Your task to perform on an android device: delete location history Image 0: 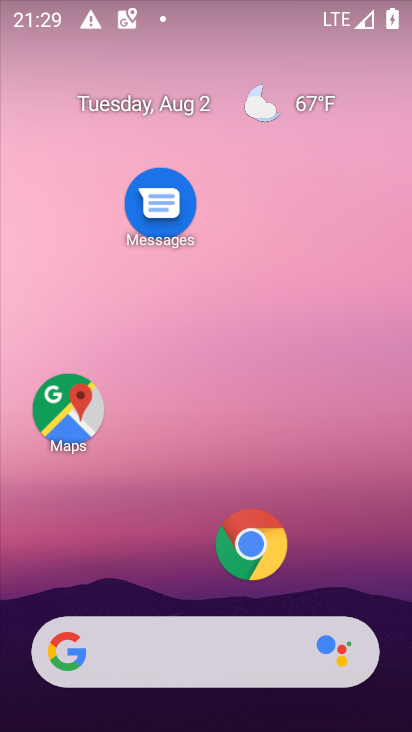
Step 0: click (80, 431)
Your task to perform on an android device: delete location history Image 1: 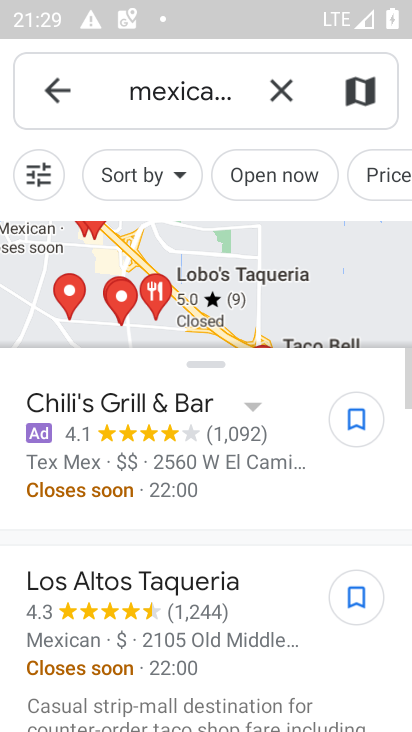
Step 1: click (51, 85)
Your task to perform on an android device: delete location history Image 2: 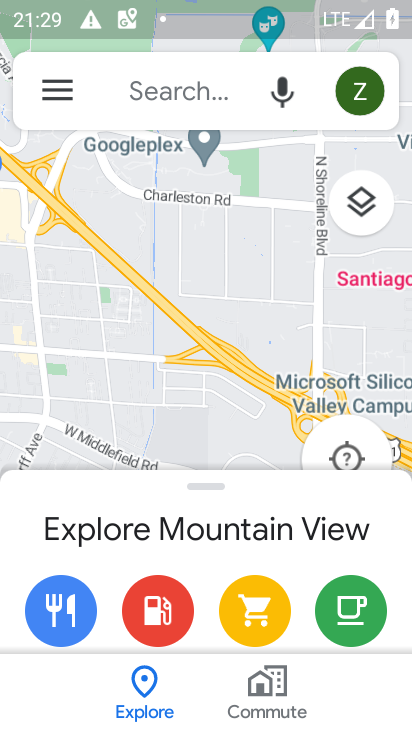
Step 2: click (51, 85)
Your task to perform on an android device: delete location history Image 3: 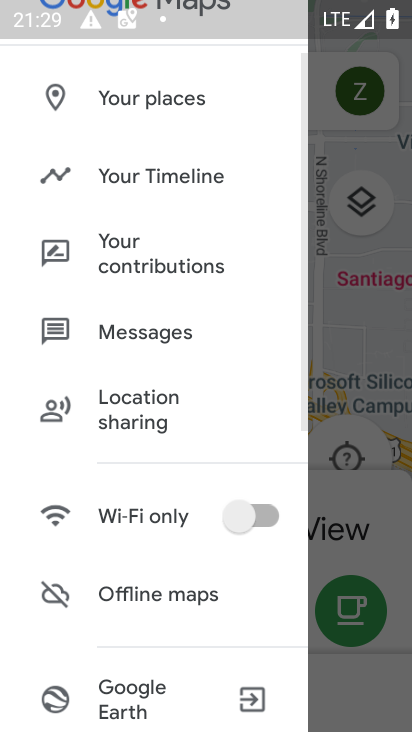
Step 3: click (172, 185)
Your task to perform on an android device: delete location history Image 4: 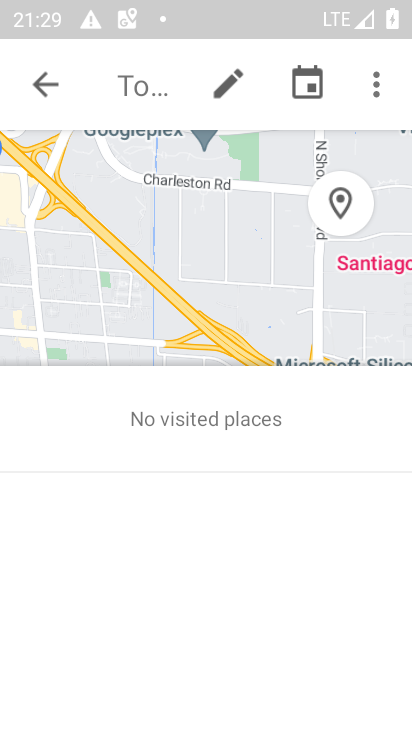
Step 4: click (369, 93)
Your task to perform on an android device: delete location history Image 5: 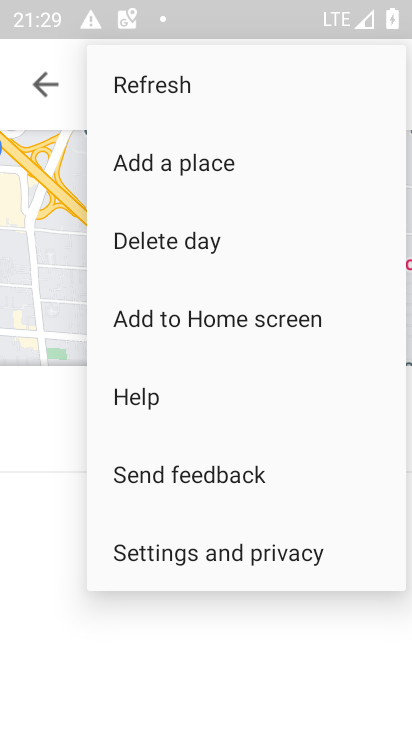
Step 5: click (198, 561)
Your task to perform on an android device: delete location history Image 6: 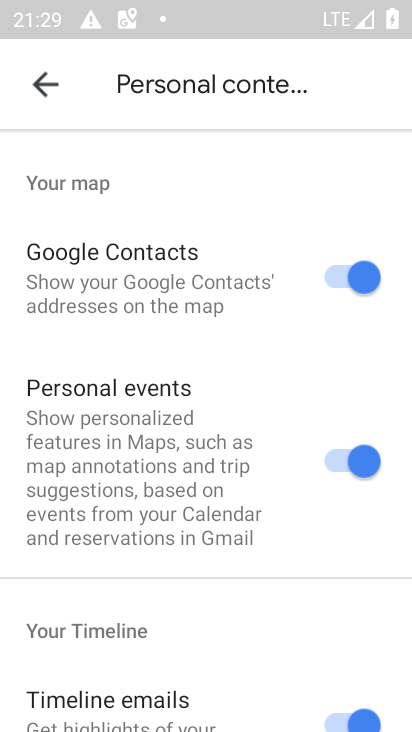
Step 6: drag from (192, 686) to (206, 202)
Your task to perform on an android device: delete location history Image 7: 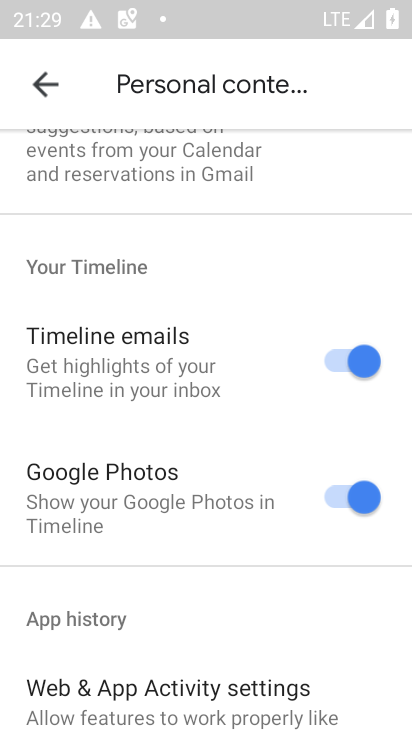
Step 7: drag from (207, 615) to (213, 194)
Your task to perform on an android device: delete location history Image 8: 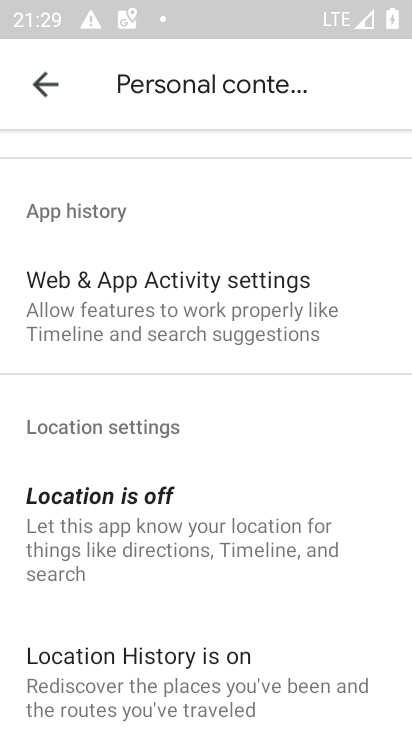
Step 8: drag from (247, 630) to (278, 306)
Your task to perform on an android device: delete location history Image 9: 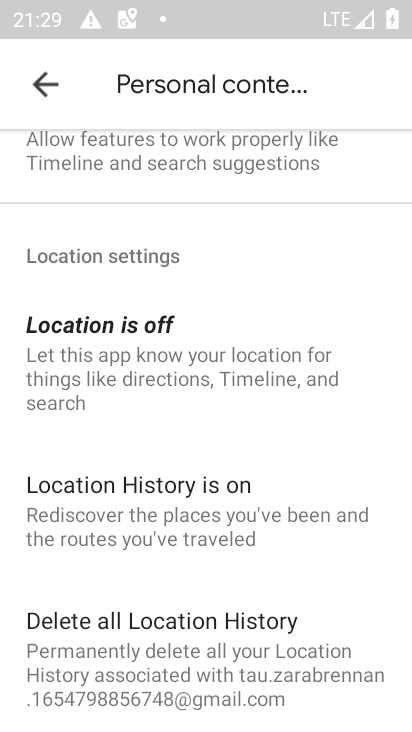
Step 9: click (203, 642)
Your task to perform on an android device: delete location history Image 10: 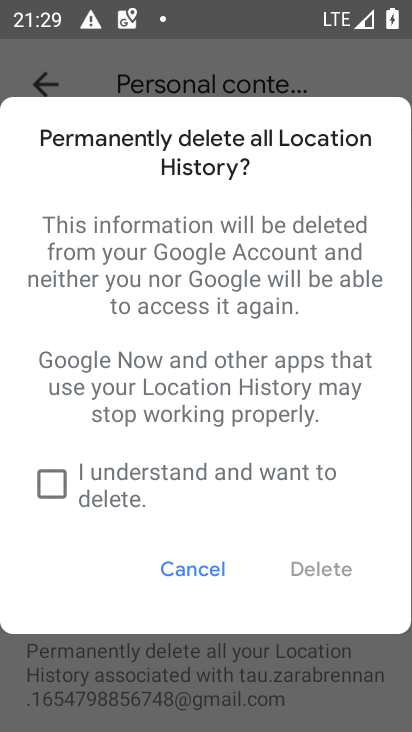
Step 10: click (112, 486)
Your task to perform on an android device: delete location history Image 11: 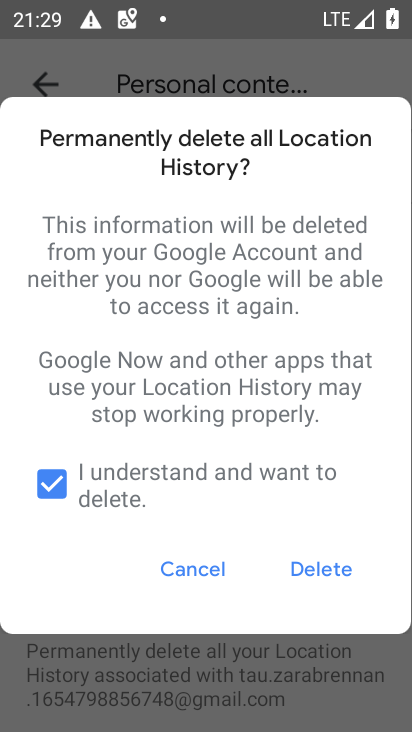
Step 11: click (284, 567)
Your task to perform on an android device: delete location history Image 12: 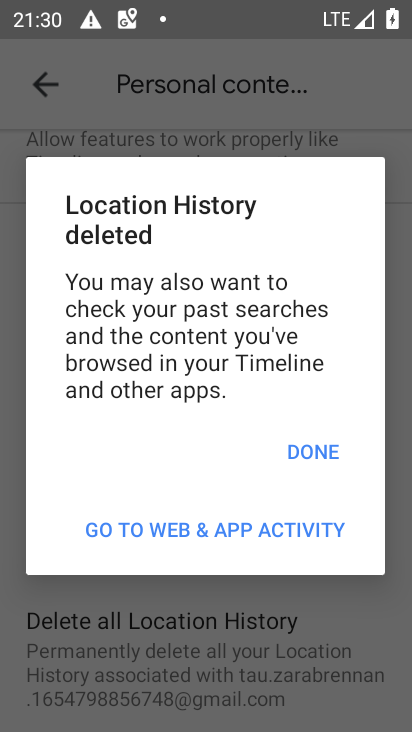
Step 12: click (313, 446)
Your task to perform on an android device: delete location history Image 13: 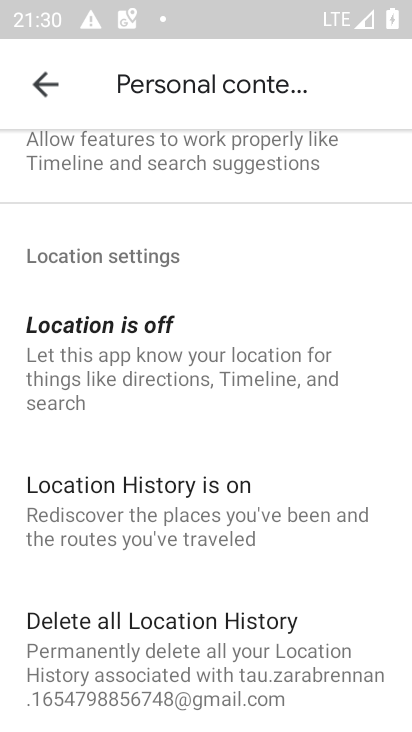
Step 13: task complete